Your task to perform on an android device: Clear the cart on ebay.com. Add bose quietcomfort 35 to the cart on ebay.com Image 0: 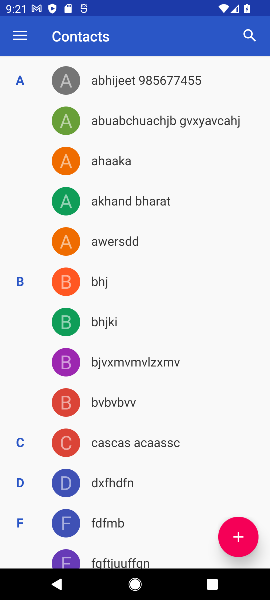
Step 0: press home button
Your task to perform on an android device: Clear the cart on ebay.com. Add bose quietcomfort 35 to the cart on ebay.com Image 1: 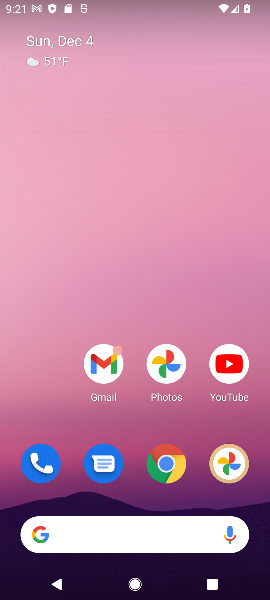
Step 1: click (123, 549)
Your task to perform on an android device: Clear the cart on ebay.com. Add bose quietcomfort 35 to the cart on ebay.com Image 2: 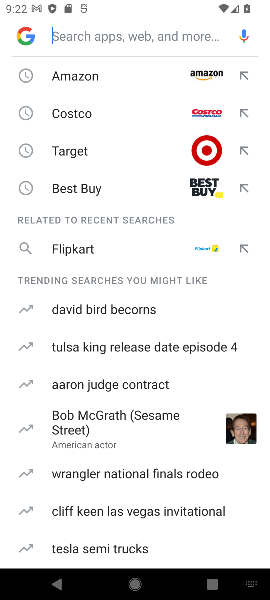
Step 2: type "ebay"
Your task to perform on an android device: Clear the cart on ebay.com. Add bose quietcomfort 35 to the cart on ebay.com Image 3: 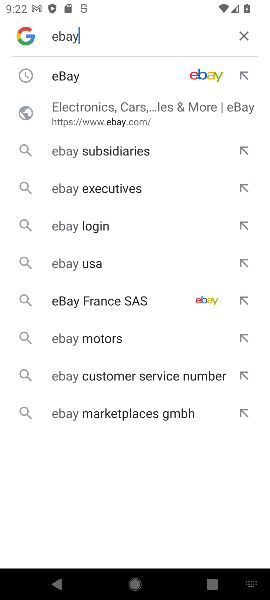
Step 3: click (71, 82)
Your task to perform on an android device: Clear the cart on ebay.com. Add bose quietcomfort 35 to the cart on ebay.com Image 4: 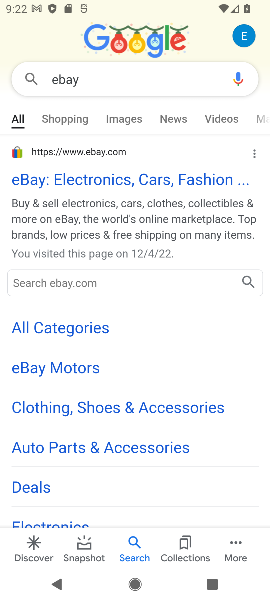
Step 4: click (104, 165)
Your task to perform on an android device: Clear the cart on ebay.com. Add bose quietcomfort 35 to the cart on ebay.com Image 5: 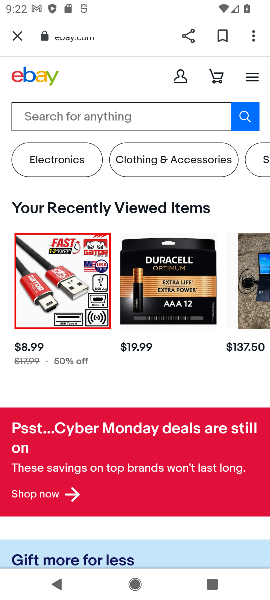
Step 5: task complete